Your task to perform on an android device: turn on translation in the chrome app Image 0: 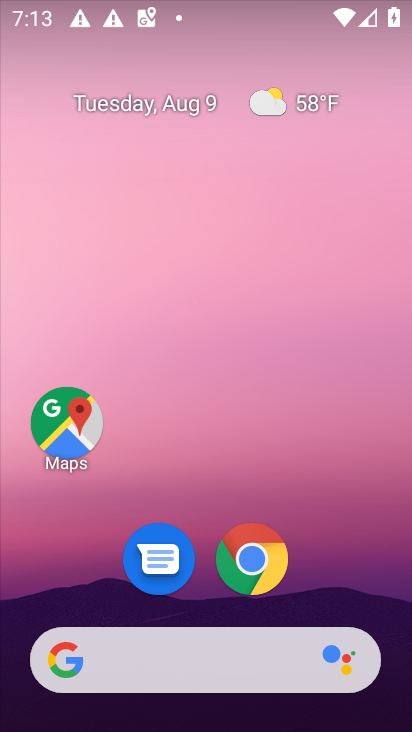
Step 0: click (247, 561)
Your task to perform on an android device: turn on translation in the chrome app Image 1: 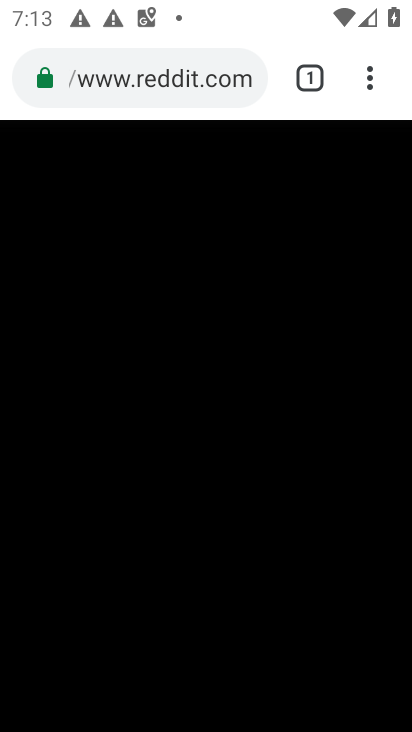
Step 1: click (368, 81)
Your task to perform on an android device: turn on translation in the chrome app Image 2: 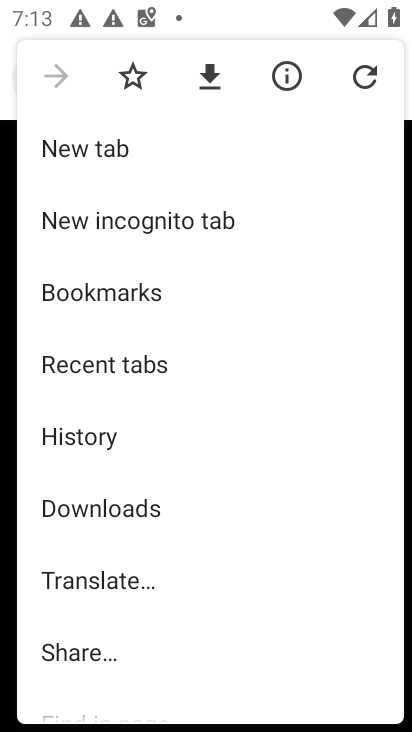
Step 2: drag from (125, 570) to (141, 322)
Your task to perform on an android device: turn on translation in the chrome app Image 3: 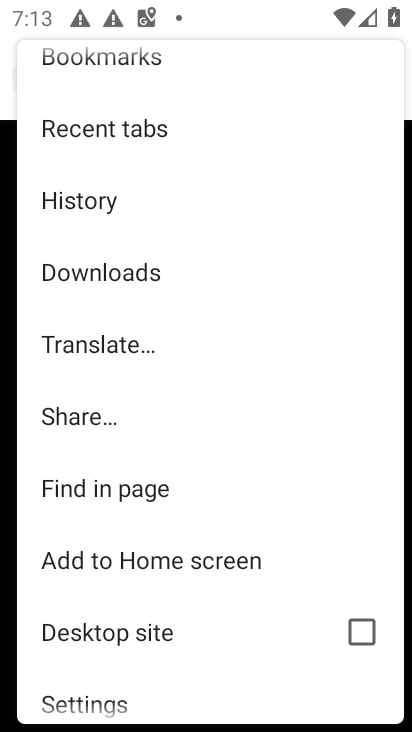
Step 3: click (96, 701)
Your task to perform on an android device: turn on translation in the chrome app Image 4: 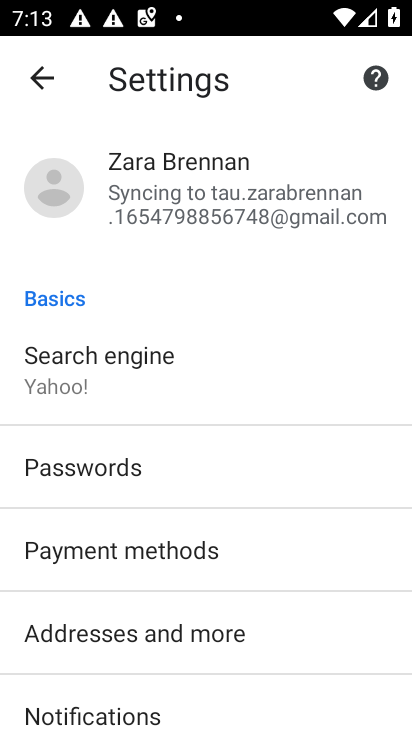
Step 4: drag from (155, 693) to (153, 358)
Your task to perform on an android device: turn on translation in the chrome app Image 5: 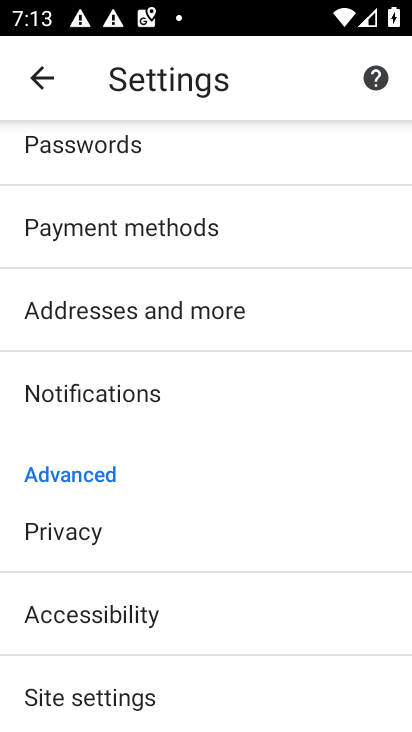
Step 5: drag from (262, 636) to (227, 296)
Your task to perform on an android device: turn on translation in the chrome app Image 6: 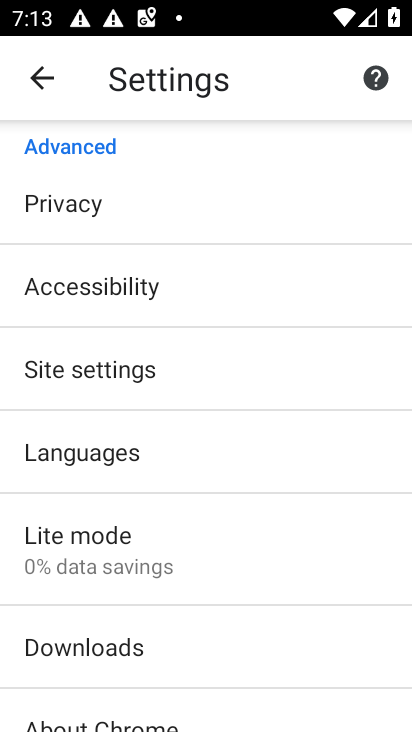
Step 6: click (104, 441)
Your task to perform on an android device: turn on translation in the chrome app Image 7: 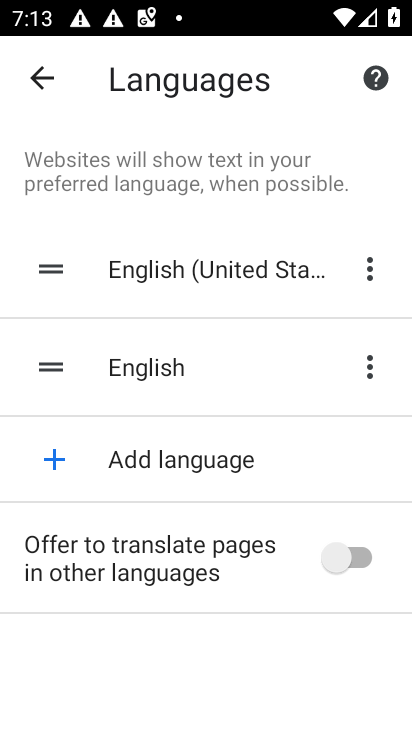
Step 7: click (362, 554)
Your task to perform on an android device: turn on translation in the chrome app Image 8: 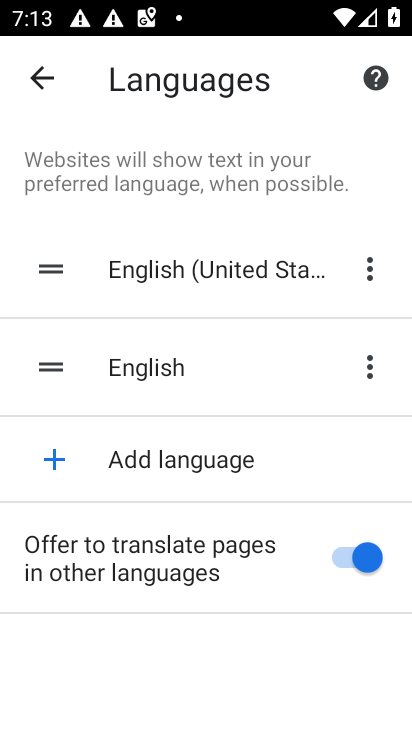
Step 8: task complete